Your task to perform on an android device: turn on airplane mode Image 0: 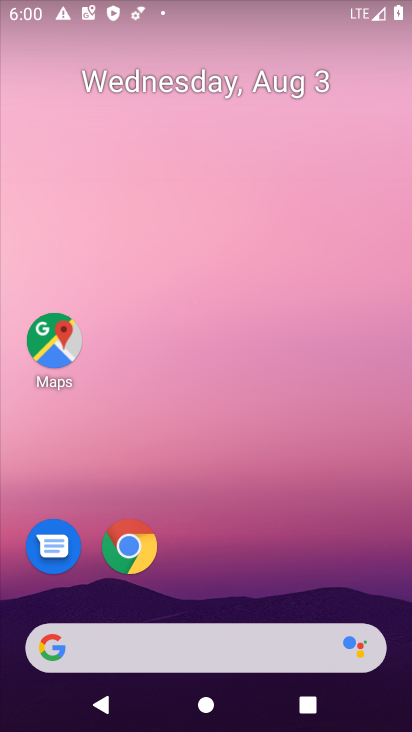
Step 0: press home button
Your task to perform on an android device: turn on airplane mode Image 1: 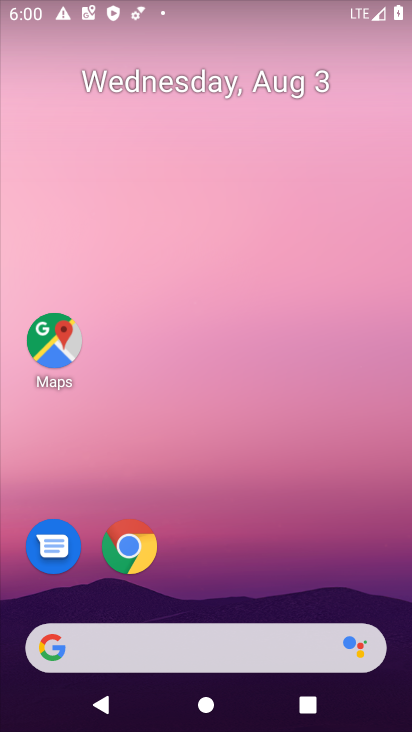
Step 1: drag from (213, 8) to (201, 515)
Your task to perform on an android device: turn on airplane mode Image 2: 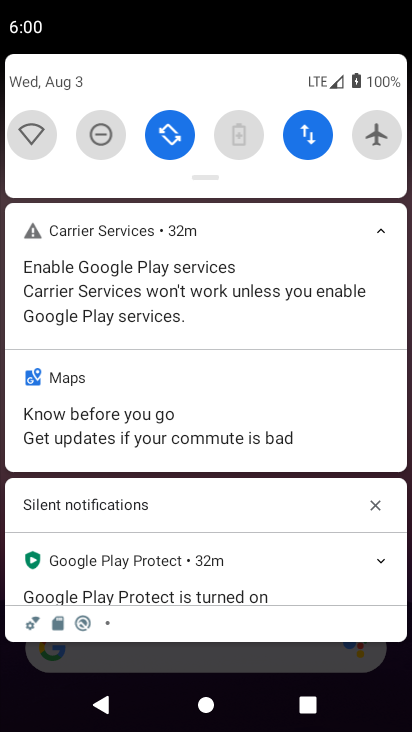
Step 2: click (381, 128)
Your task to perform on an android device: turn on airplane mode Image 3: 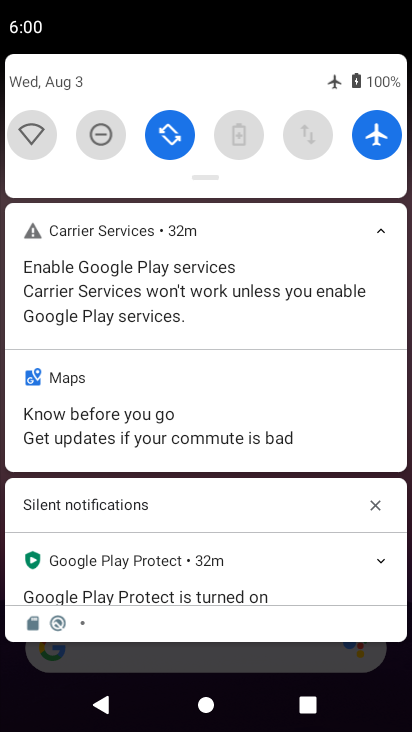
Step 3: task complete